Your task to perform on an android device: check data usage Image 0: 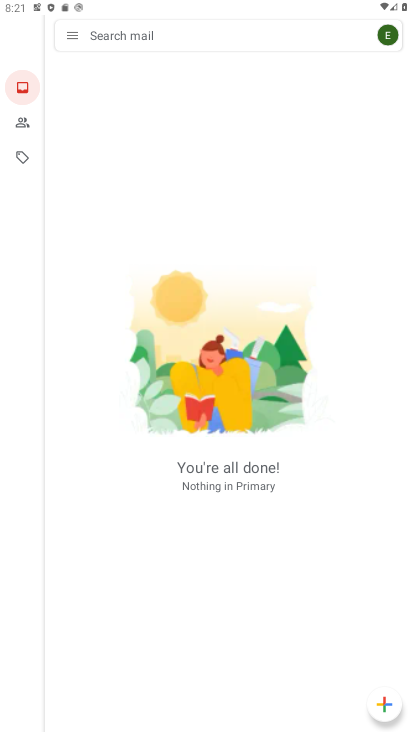
Step 0: press home button
Your task to perform on an android device: check data usage Image 1: 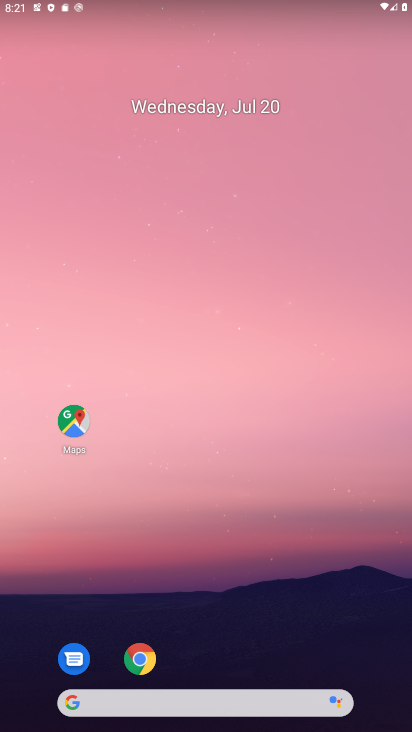
Step 1: drag from (259, 6) to (257, 542)
Your task to perform on an android device: check data usage Image 2: 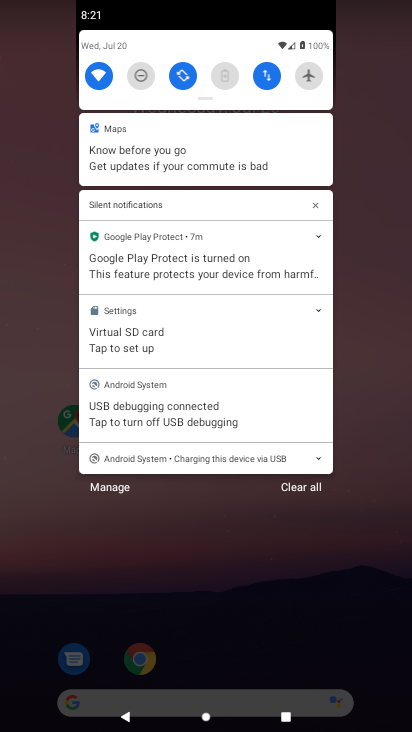
Step 2: click (265, 79)
Your task to perform on an android device: check data usage Image 3: 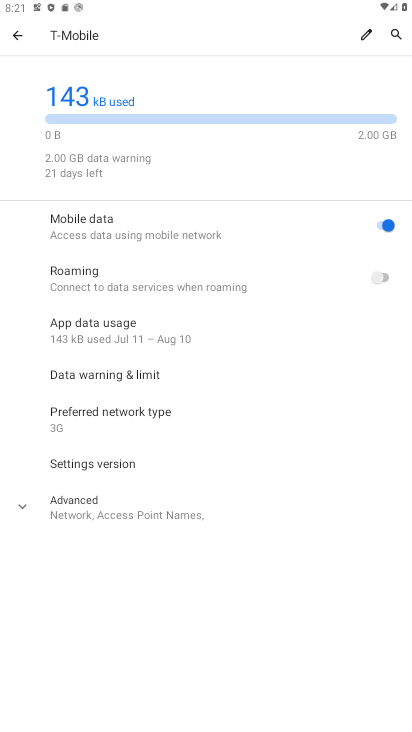
Step 3: task complete